Your task to perform on an android device: remove spam from my inbox in the gmail app Image 0: 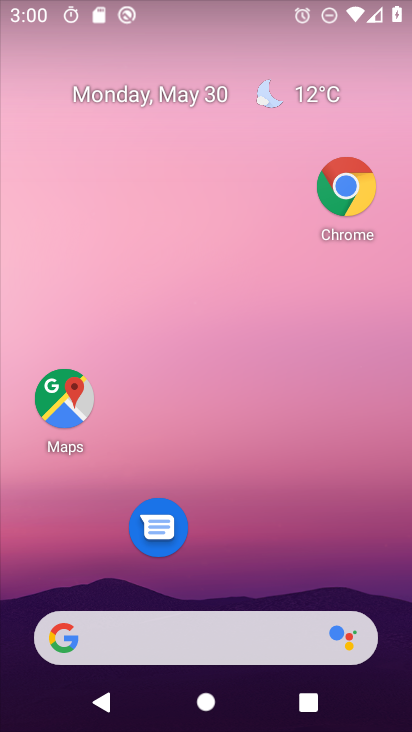
Step 0: drag from (199, 577) to (188, 166)
Your task to perform on an android device: remove spam from my inbox in the gmail app Image 1: 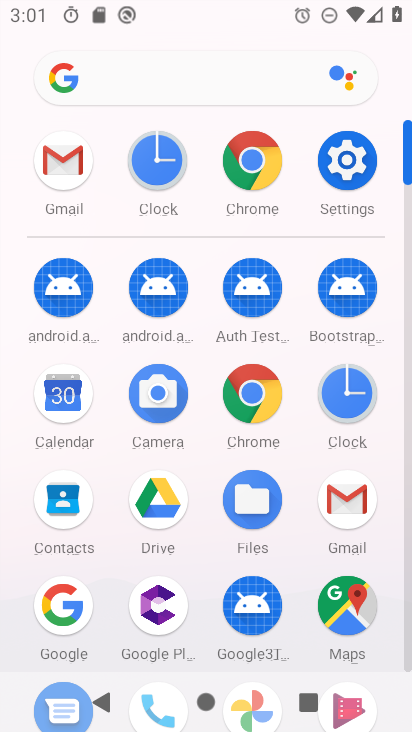
Step 1: click (339, 501)
Your task to perform on an android device: remove spam from my inbox in the gmail app Image 2: 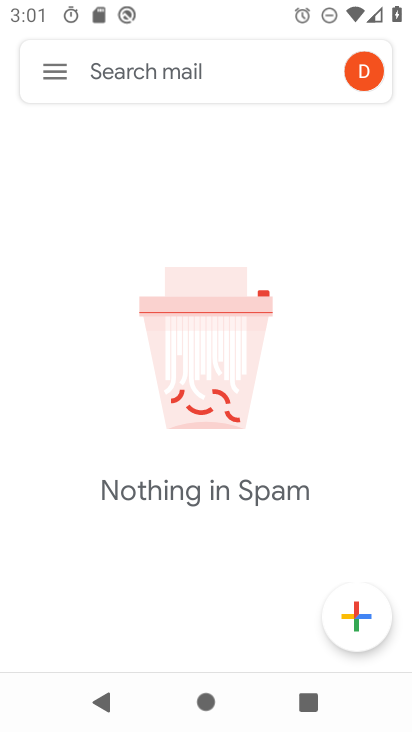
Step 2: click (58, 66)
Your task to perform on an android device: remove spam from my inbox in the gmail app Image 3: 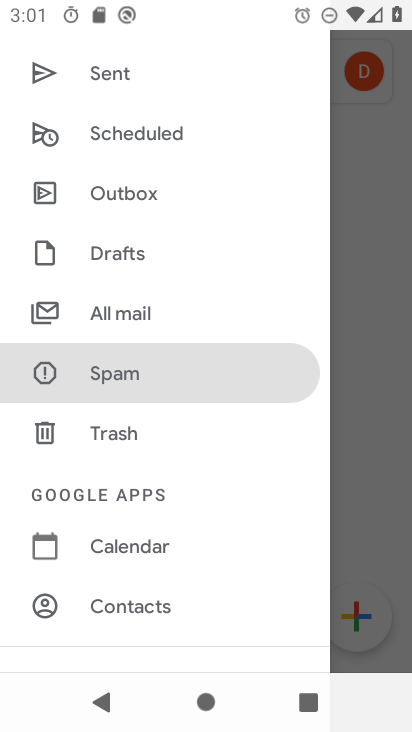
Step 3: click (108, 367)
Your task to perform on an android device: remove spam from my inbox in the gmail app Image 4: 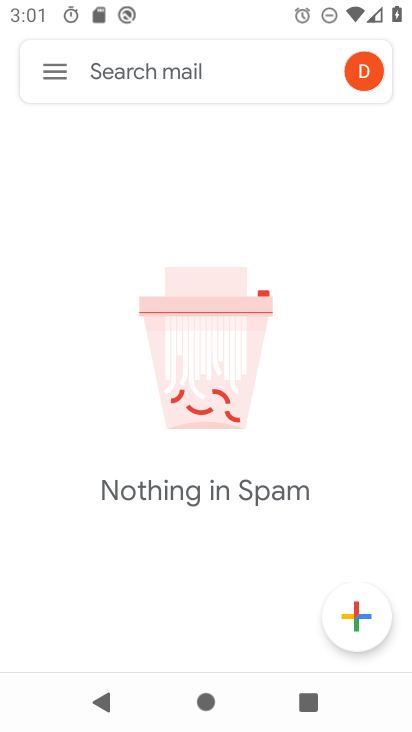
Step 4: task complete